Your task to perform on an android device: open device folders in google photos Image 0: 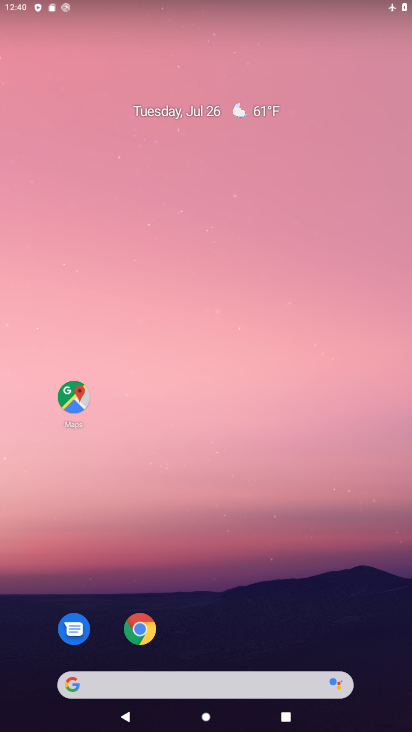
Step 0: drag from (209, 654) to (200, 30)
Your task to perform on an android device: open device folders in google photos Image 1: 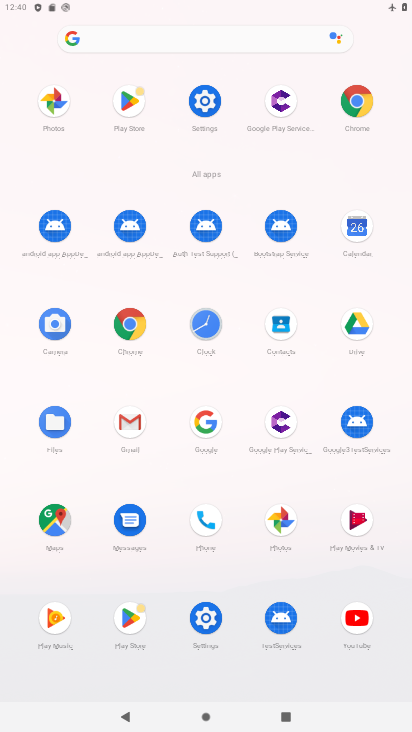
Step 1: click (289, 510)
Your task to perform on an android device: open device folders in google photos Image 2: 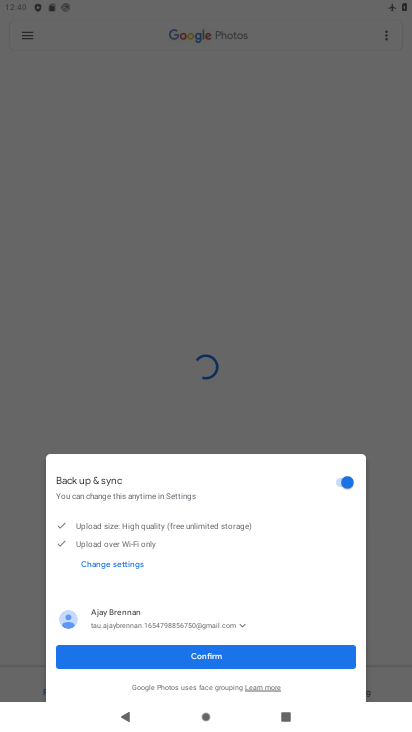
Step 2: click (208, 647)
Your task to perform on an android device: open device folders in google photos Image 3: 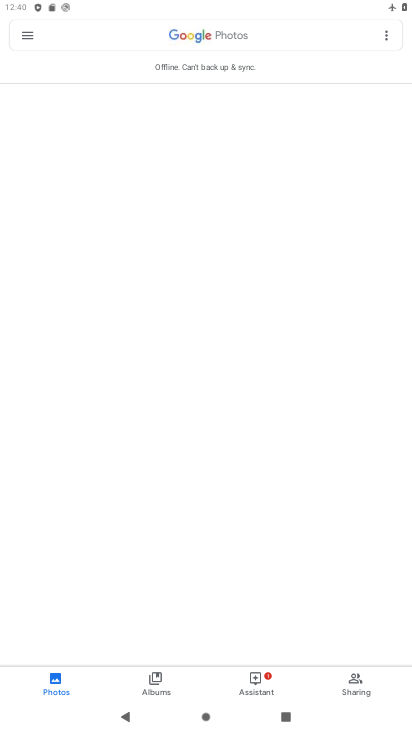
Step 3: click (32, 29)
Your task to perform on an android device: open device folders in google photos Image 4: 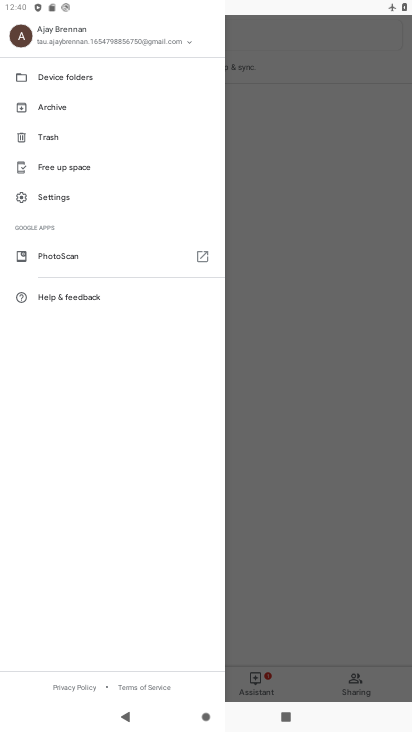
Step 4: click (50, 85)
Your task to perform on an android device: open device folders in google photos Image 5: 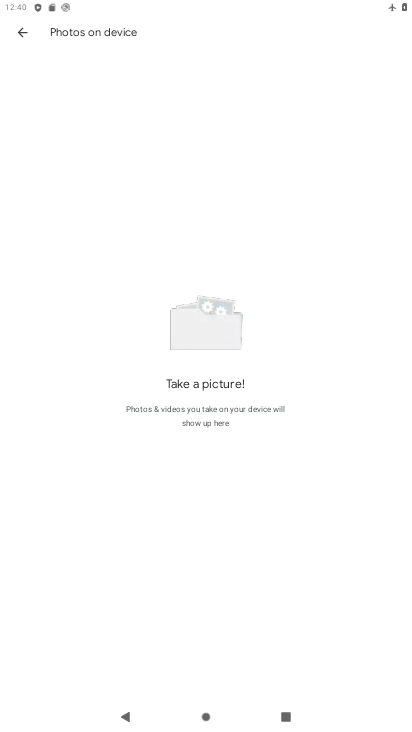
Step 5: task complete